Your task to perform on an android device: Check the news Image 0: 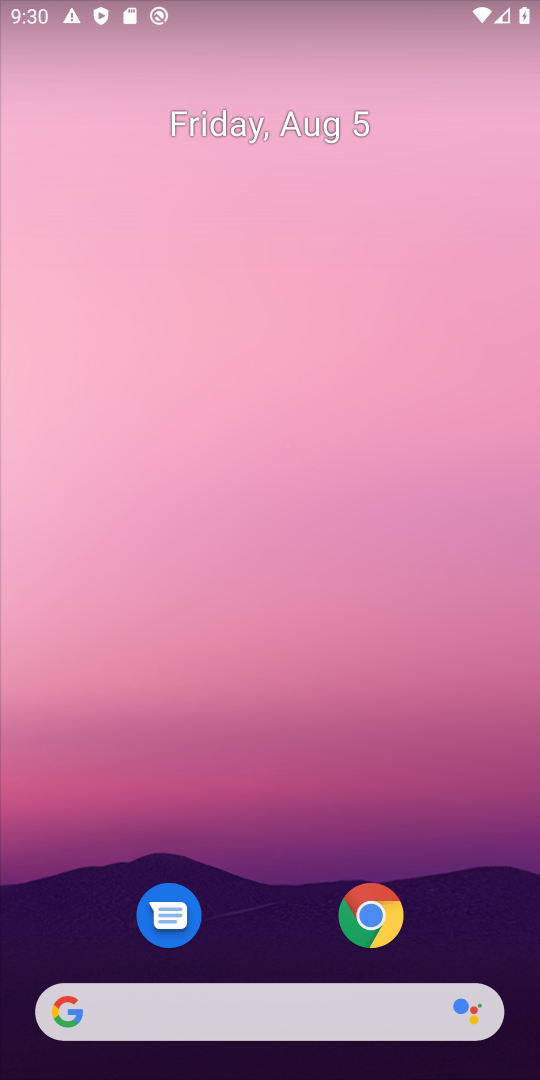
Step 0: drag from (126, 992) to (329, 273)
Your task to perform on an android device: Check the news Image 1: 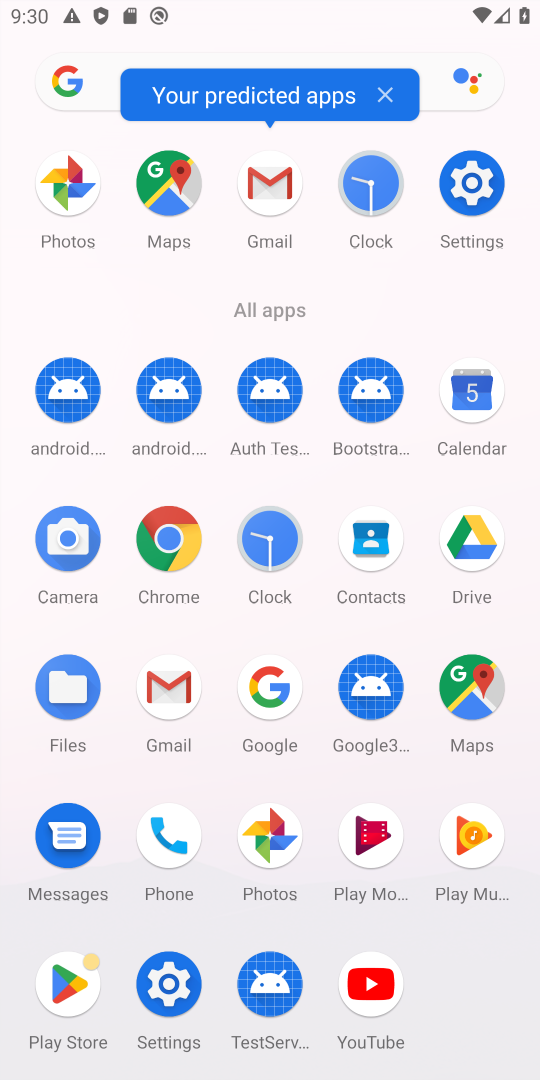
Step 1: click (172, 564)
Your task to perform on an android device: Check the news Image 2: 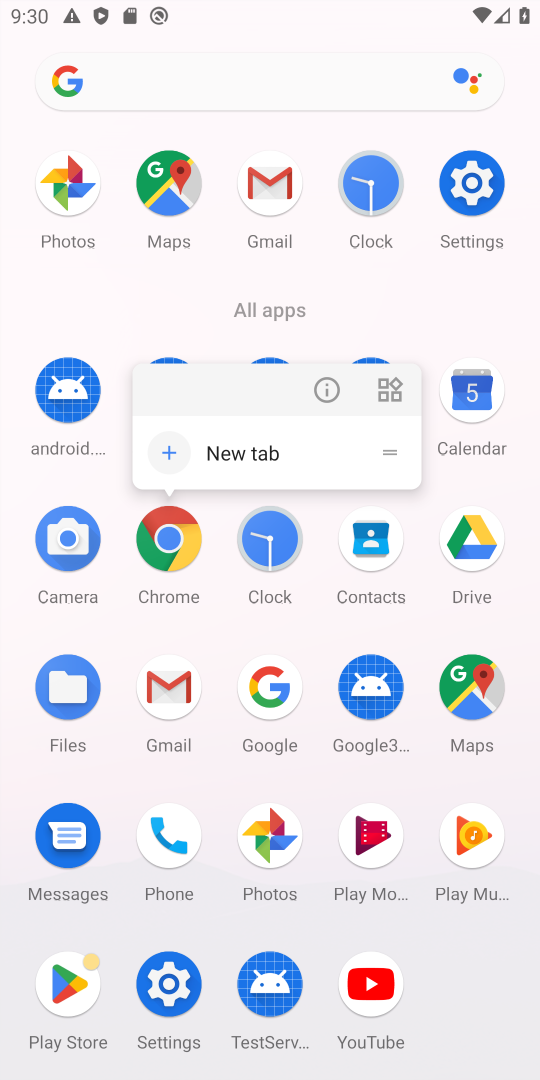
Step 2: click (171, 551)
Your task to perform on an android device: Check the news Image 3: 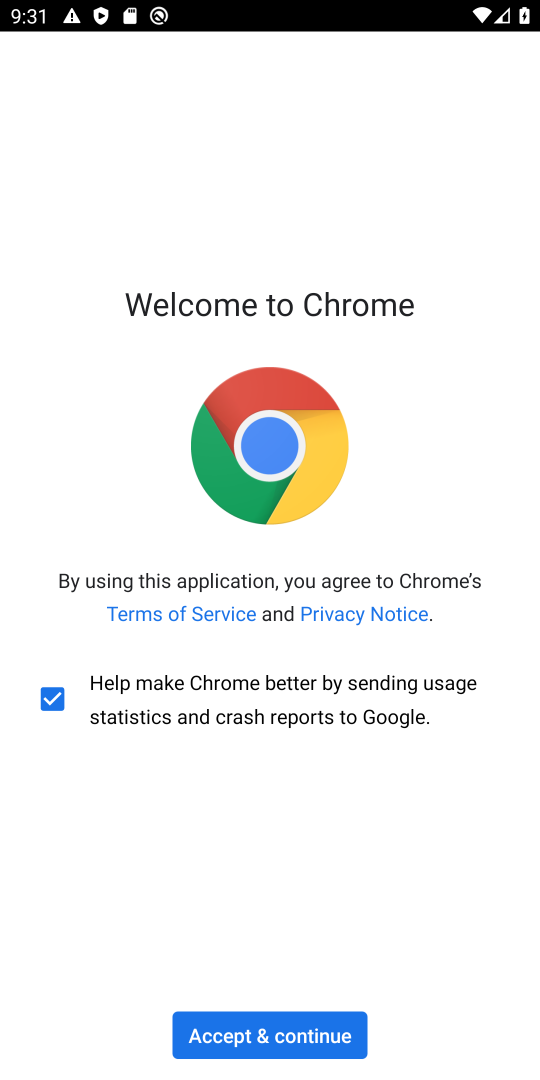
Step 3: click (245, 1042)
Your task to perform on an android device: Check the news Image 4: 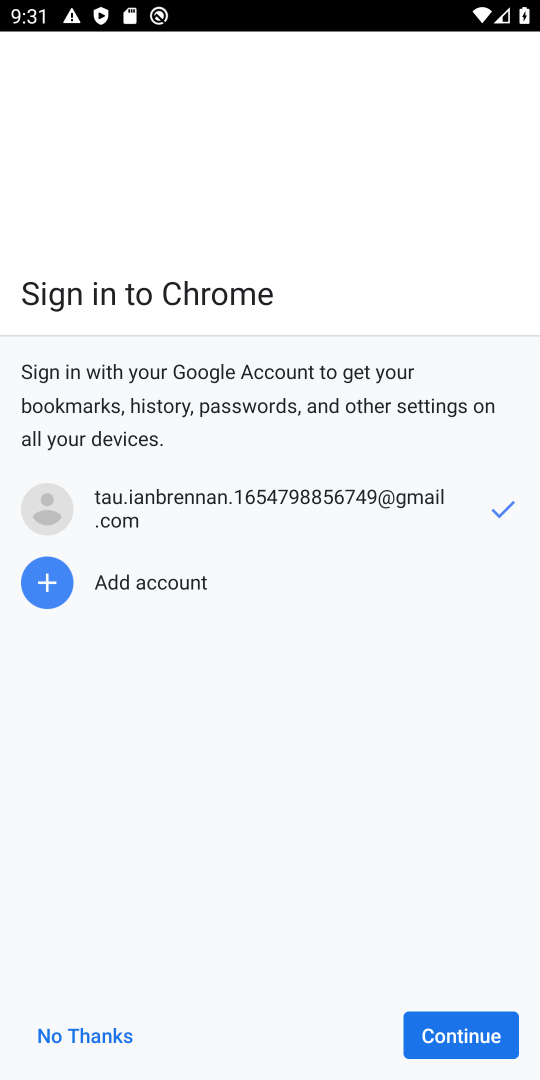
Step 4: click (101, 1031)
Your task to perform on an android device: Check the news Image 5: 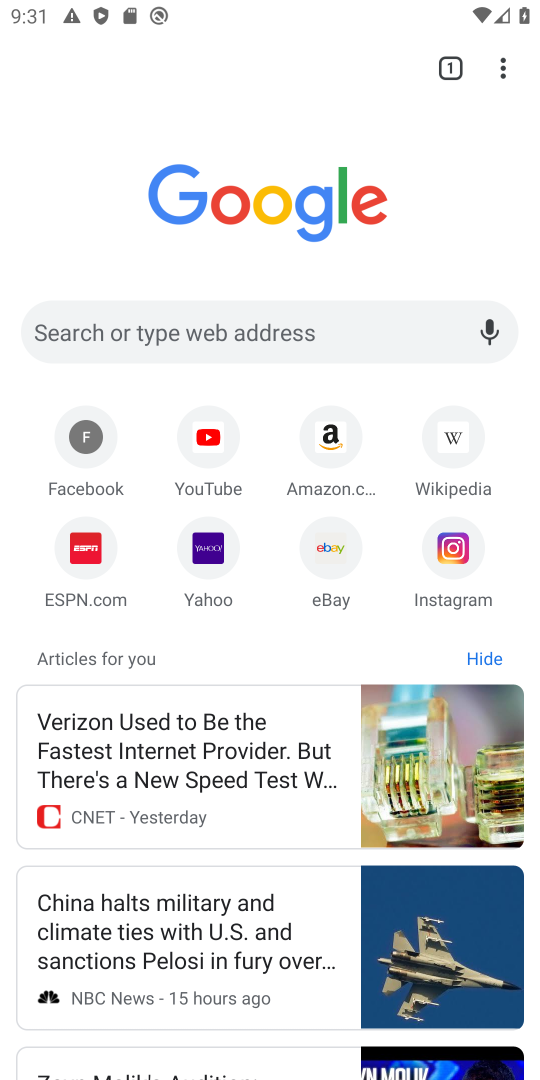
Step 5: task complete